Your task to perform on an android device: Search for beats solo 3 on costco.com, select the first entry, add it to the cart, then select checkout. Image 0: 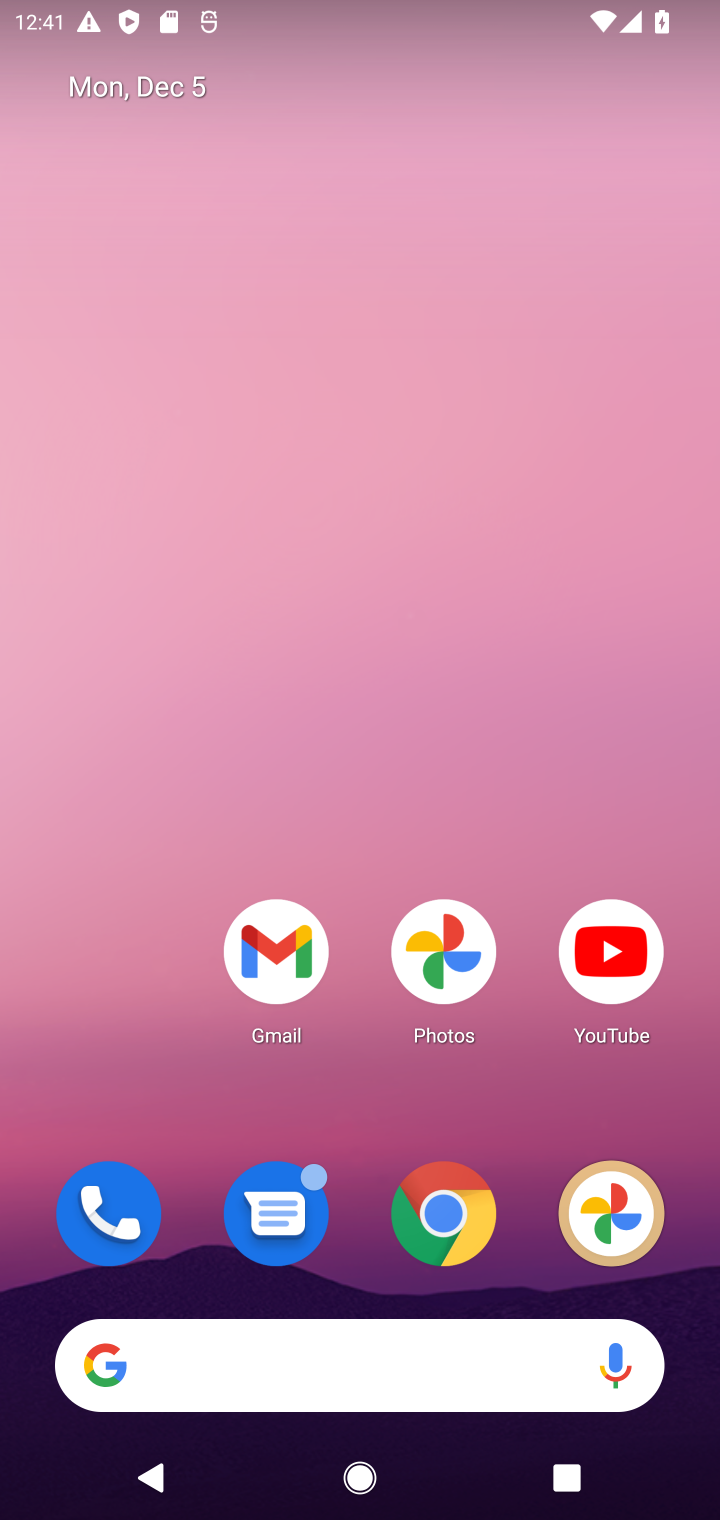
Step 0: click (453, 1225)
Your task to perform on an android device: Search for beats solo 3 on costco.com, select the first entry, add it to the cart, then select checkout. Image 1: 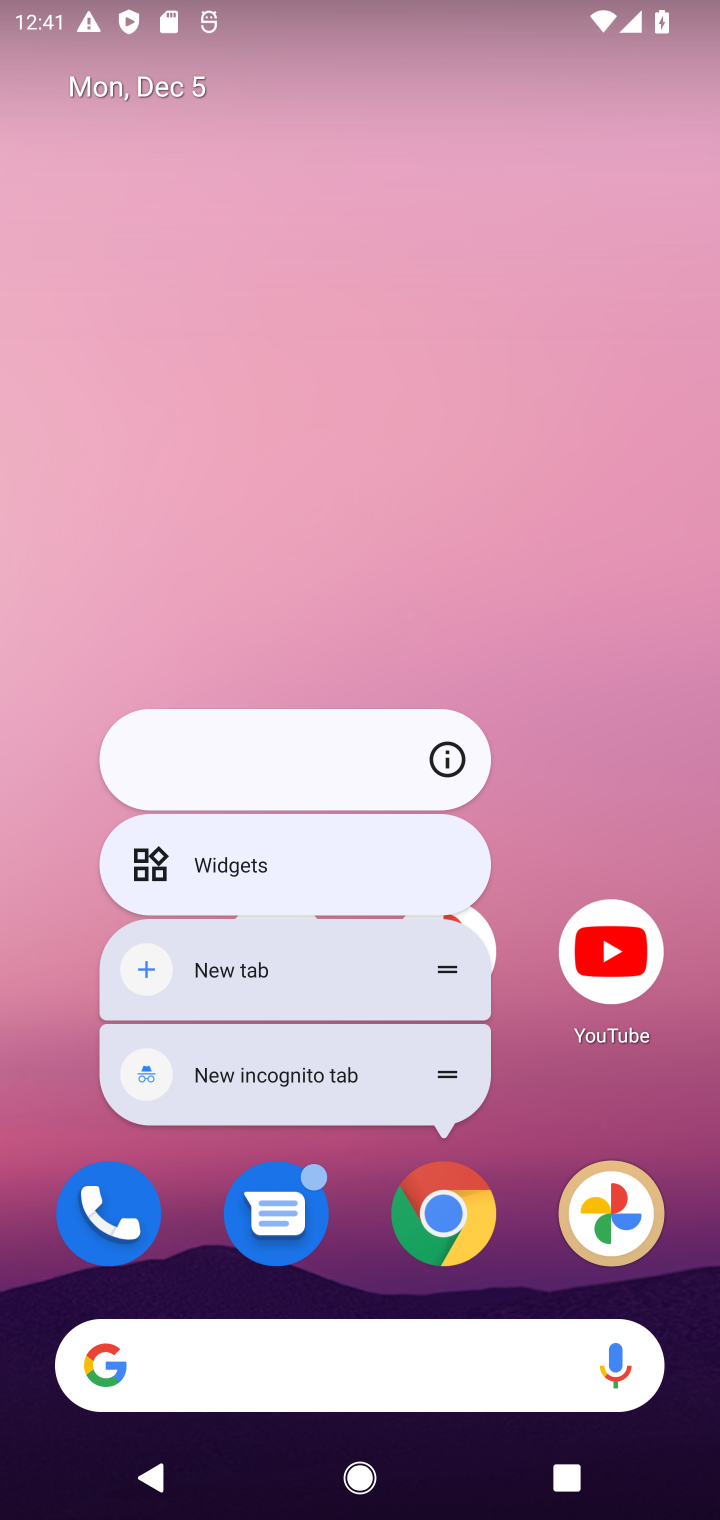
Step 1: click (453, 1225)
Your task to perform on an android device: Search for beats solo 3 on costco.com, select the first entry, add it to the cart, then select checkout. Image 2: 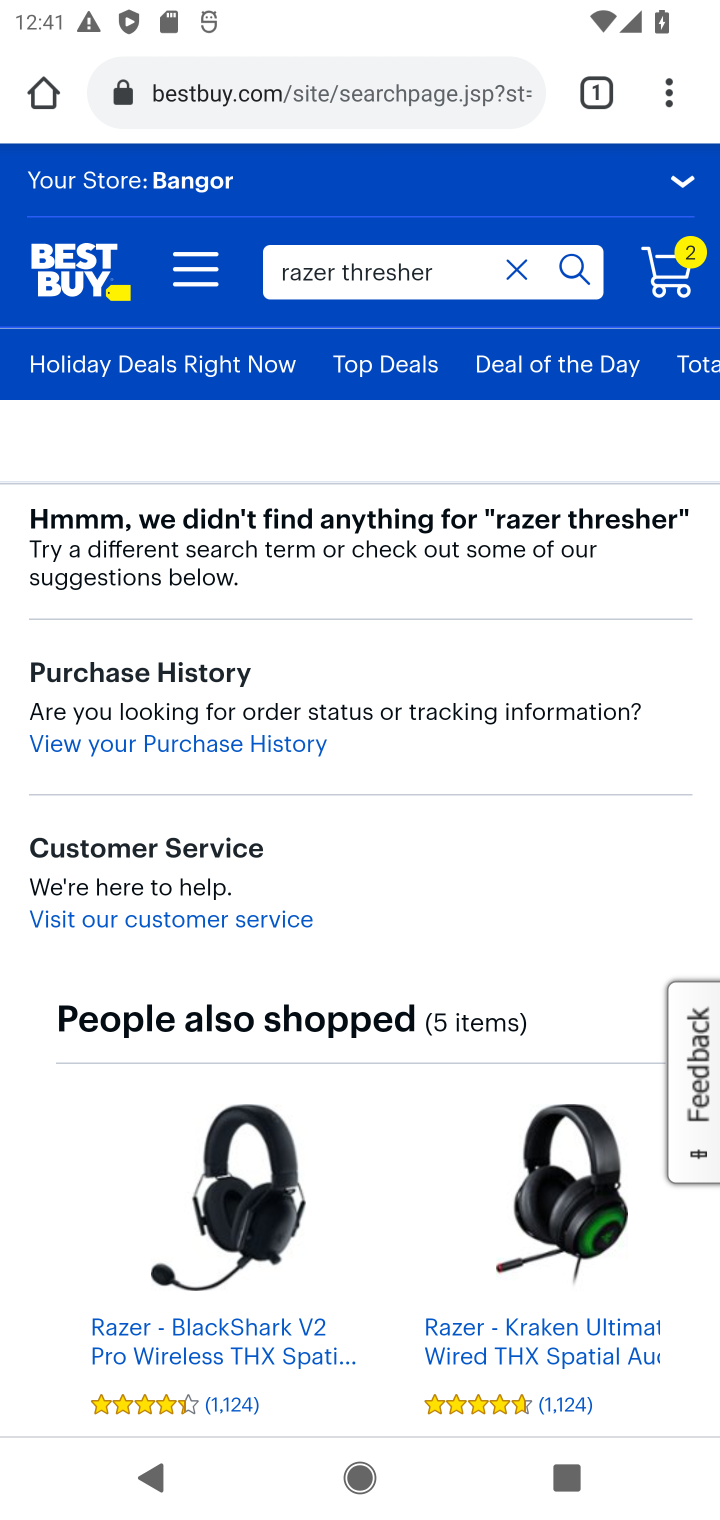
Step 2: click (331, 94)
Your task to perform on an android device: Search for beats solo 3 on costco.com, select the first entry, add it to the cart, then select checkout. Image 3: 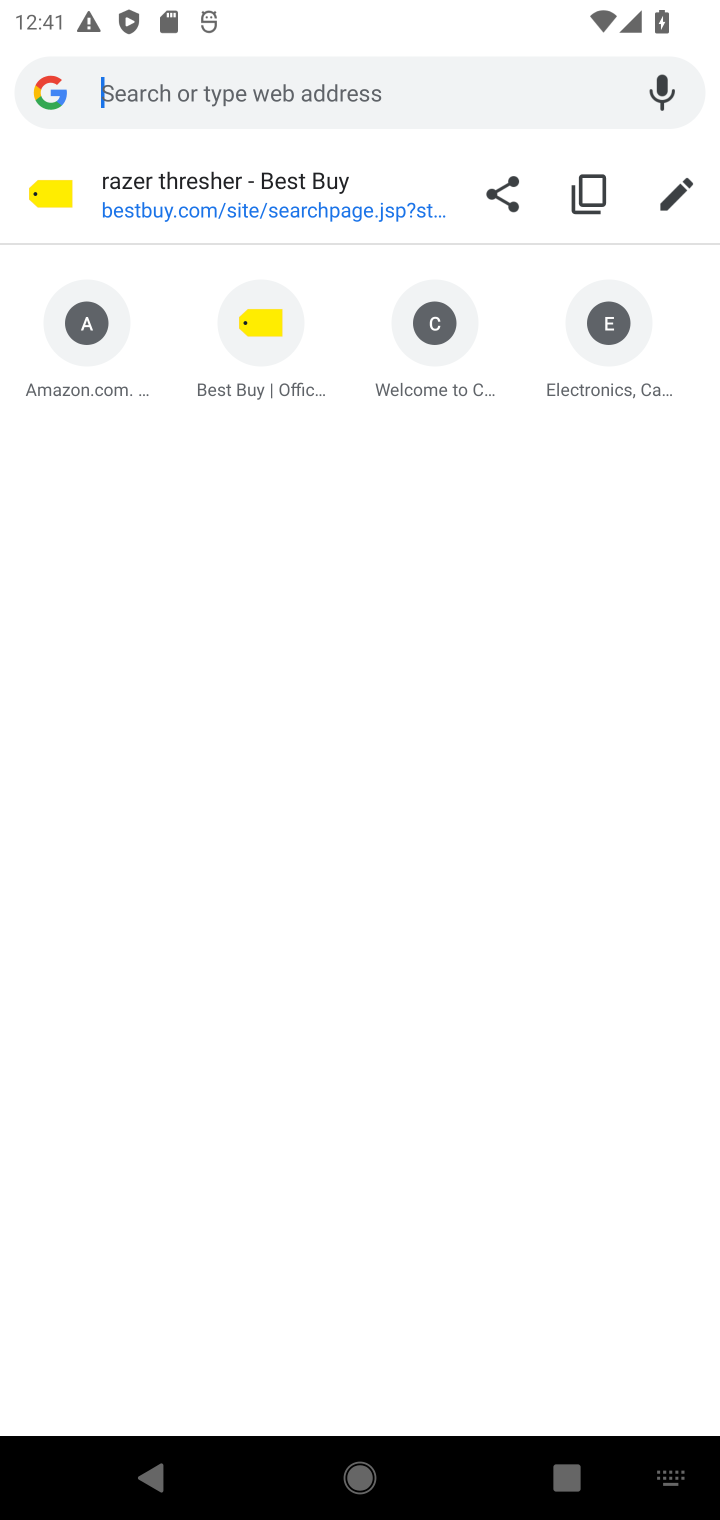
Step 3: type "costco.com"
Your task to perform on an android device: Search for beats solo 3 on costco.com, select the first entry, add it to the cart, then select checkout. Image 4: 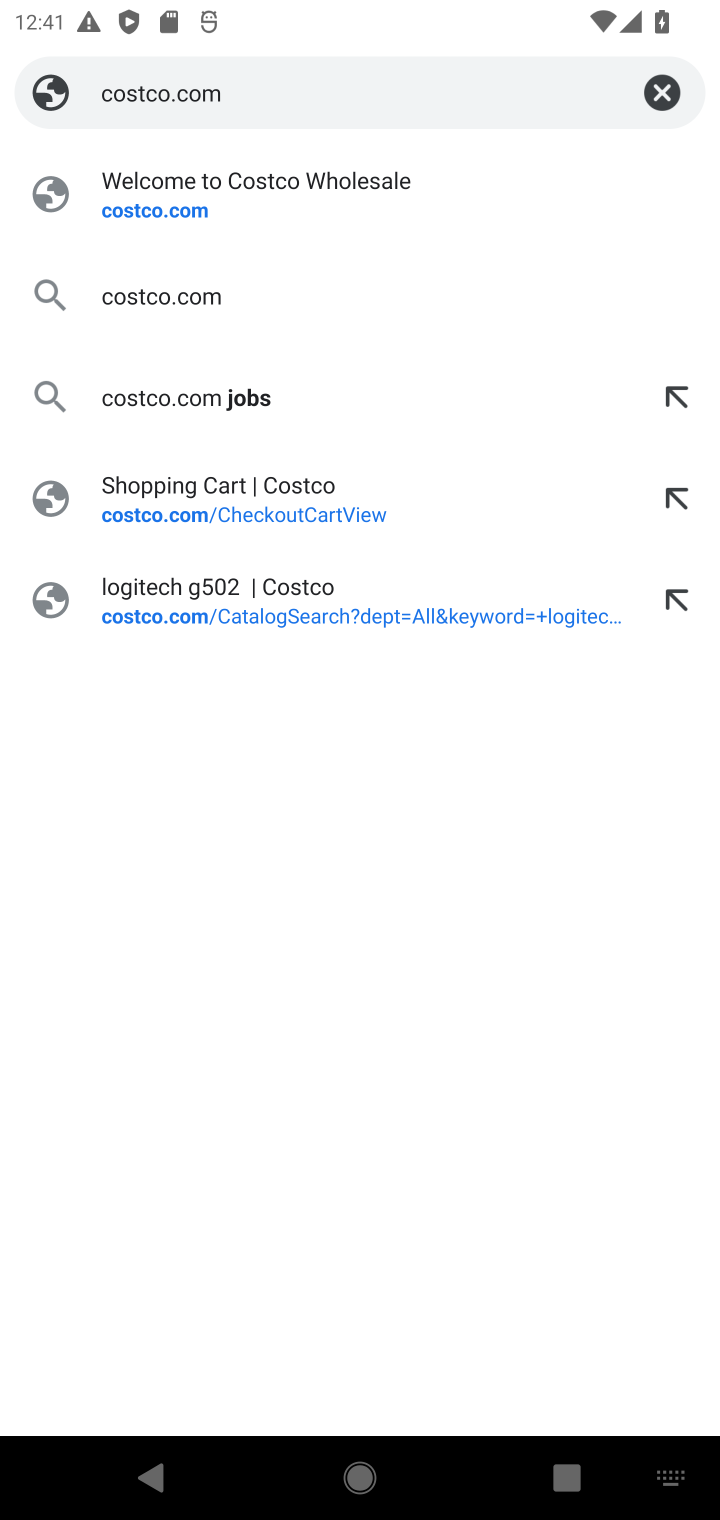
Step 4: click (147, 222)
Your task to perform on an android device: Search for beats solo 3 on costco.com, select the first entry, add it to the cart, then select checkout. Image 5: 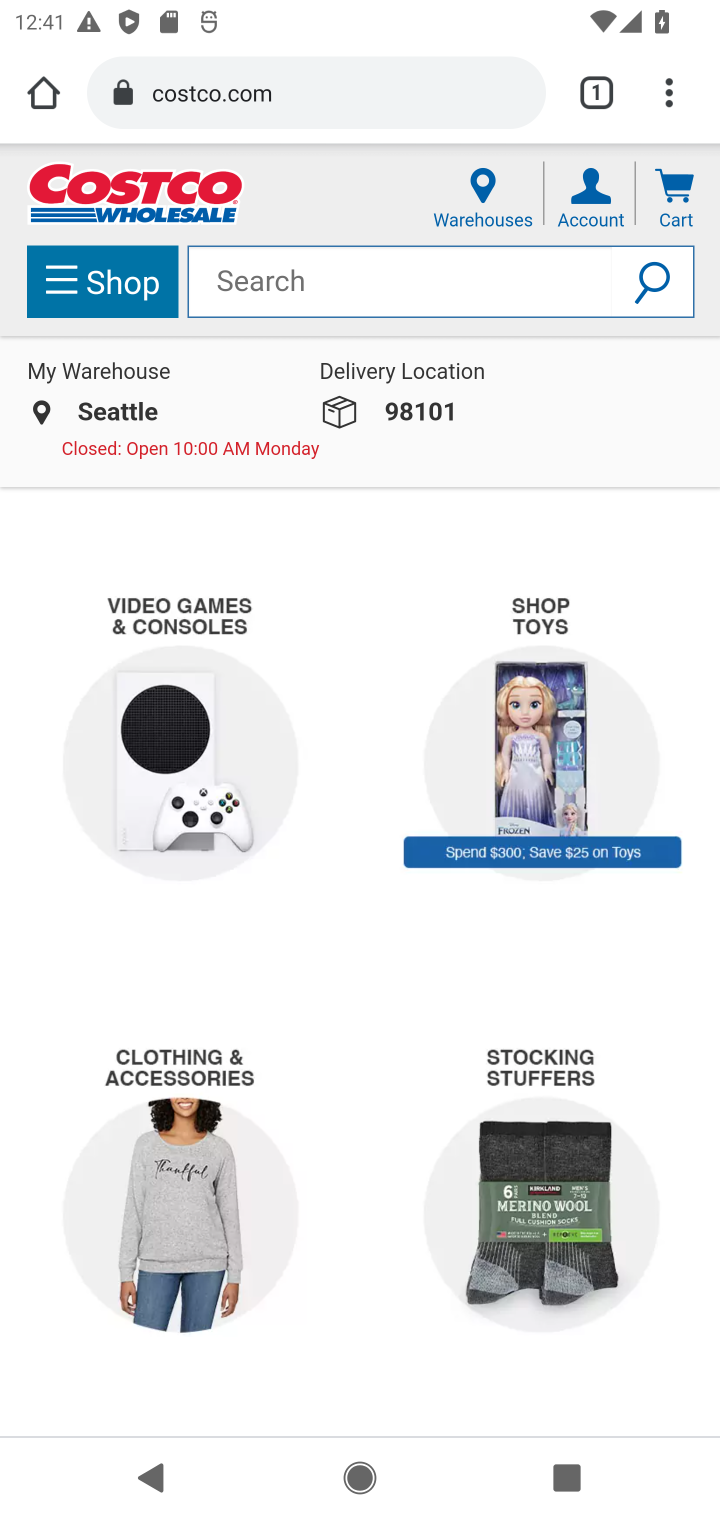
Step 5: click (295, 281)
Your task to perform on an android device: Search for beats solo 3 on costco.com, select the first entry, add it to the cart, then select checkout. Image 6: 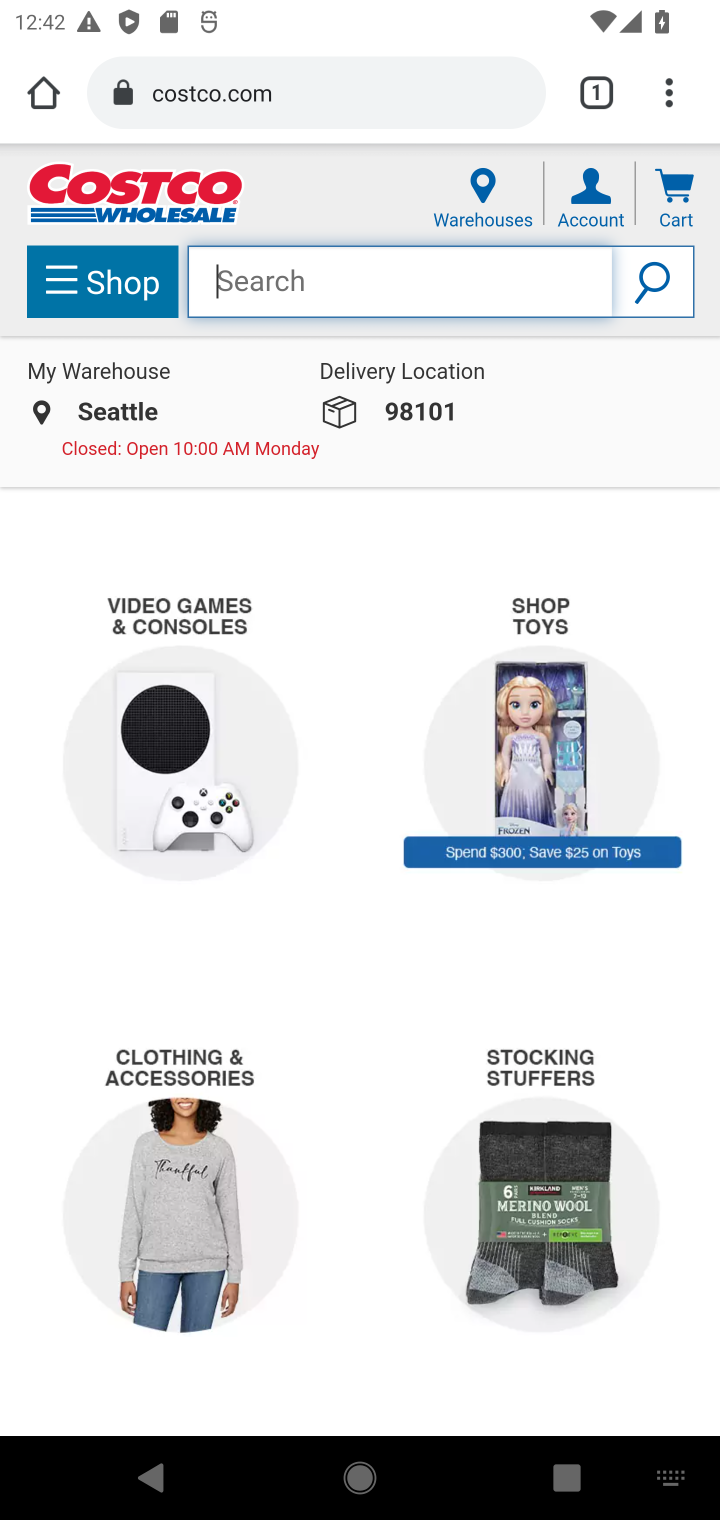
Step 6: type "beats solo 3"
Your task to perform on an android device: Search for beats solo 3 on costco.com, select the first entry, add it to the cart, then select checkout. Image 7: 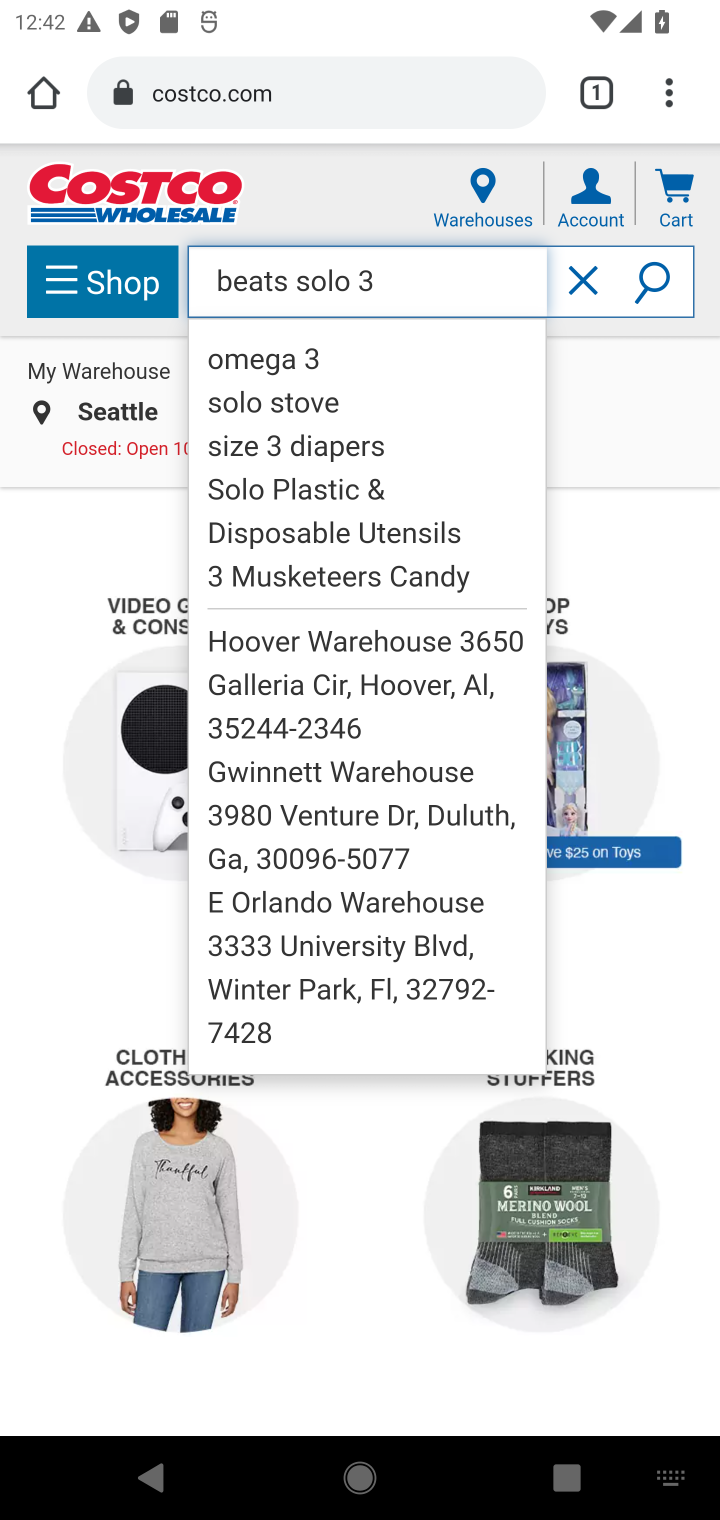
Step 7: click (655, 288)
Your task to perform on an android device: Search for beats solo 3 on costco.com, select the first entry, add it to the cart, then select checkout. Image 8: 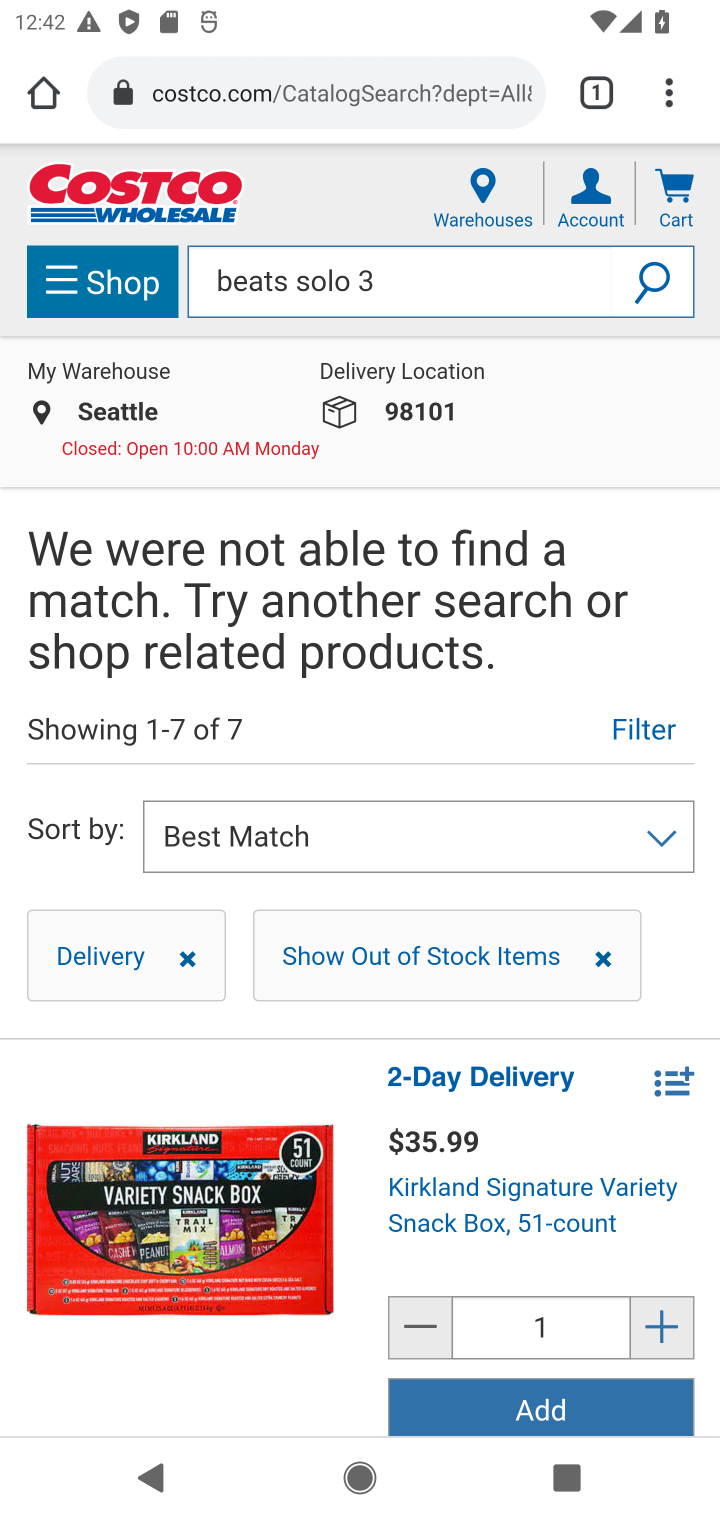
Step 8: task complete